Your task to perform on an android device: Search for seafood restaurants on Google Maps Image 0: 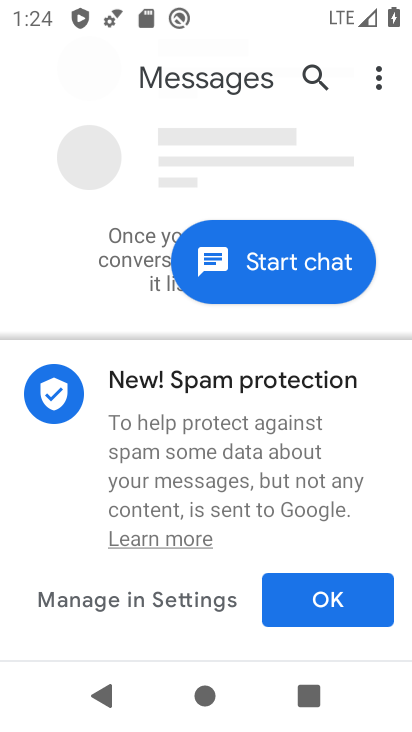
Step 0: press home button
Your task to perform on an android device: Search for seafood restaurants on Google Maps Image 1: 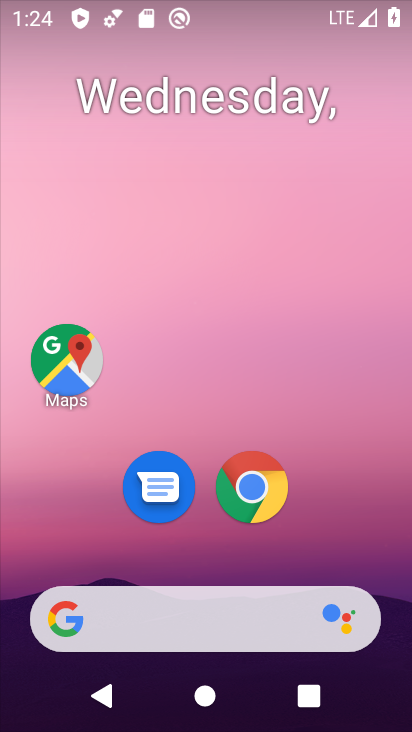
Step 1: click (80, 343)
Your task to perform on an android device: Search for seafood restaurants on Google Maps Image 2: 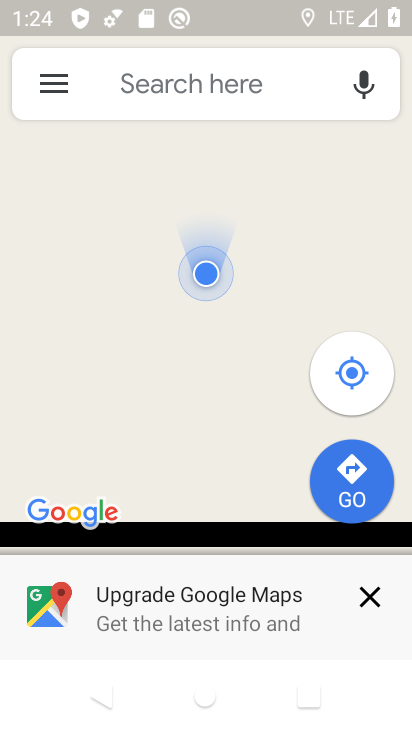
Step 2: click (177, 79)
Your task to perform on an android device: Search for seafood restaurants on Google Maps Image 3: 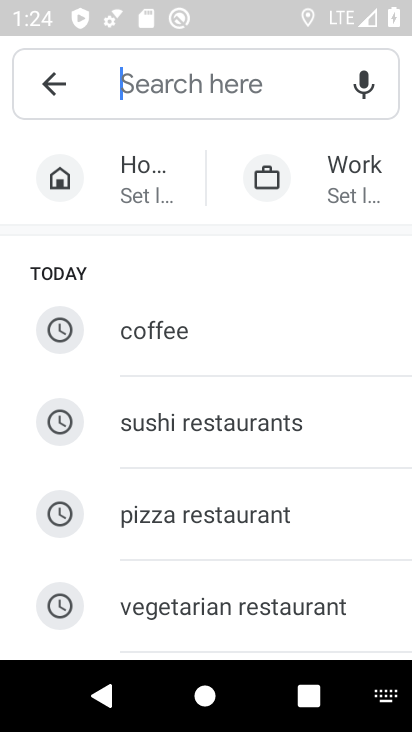
Step 3: type "seafood restaurants"
Your task to perform on an android device: Search for seafood restaurants on Google Maps Image 4: 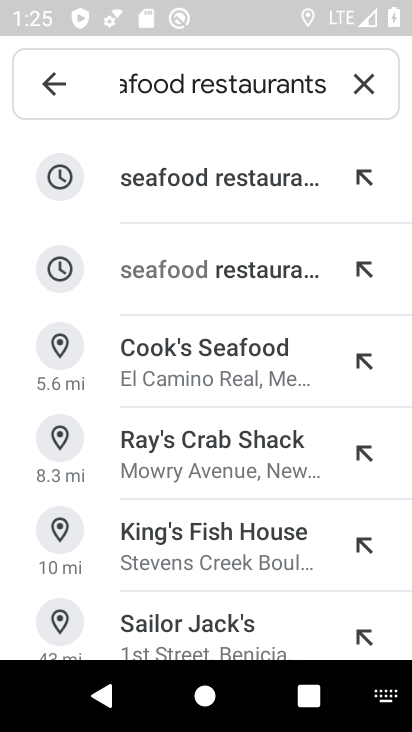
Step 4: click (287, 153)
Your task to perform on an android device: Search for seafood restaurants on Google Maps Image 5: 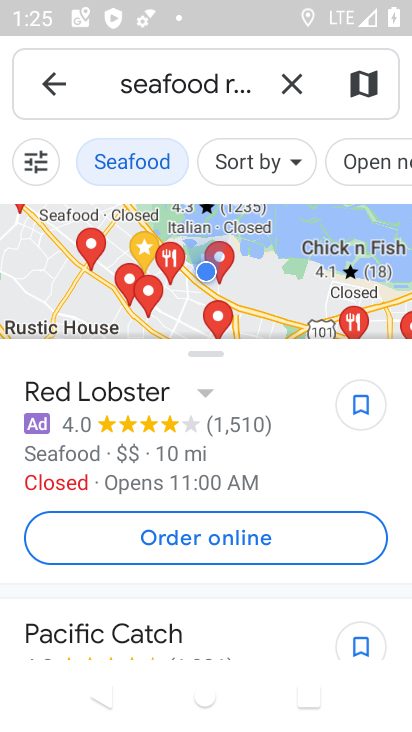
Step 5: task complete